Your task to perform on an android device: visit the assistant section in the google photos Image 0: 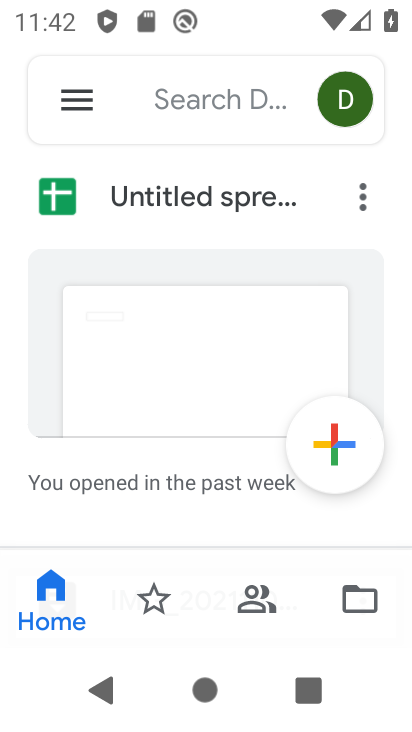
Step 0: press home button
Your task to perform on an android device: visit the assistant section in the google photos Image 1: 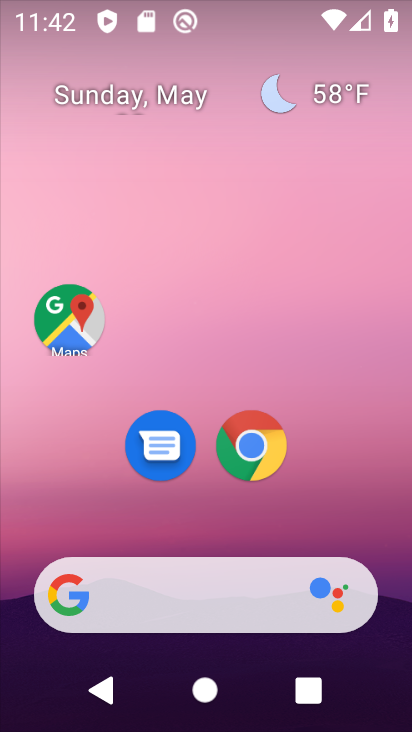
Step 1: drag from (211, 534) to (199, 83)
Your task to perform on an android device: visit the assistant section in the google photos Image 2: 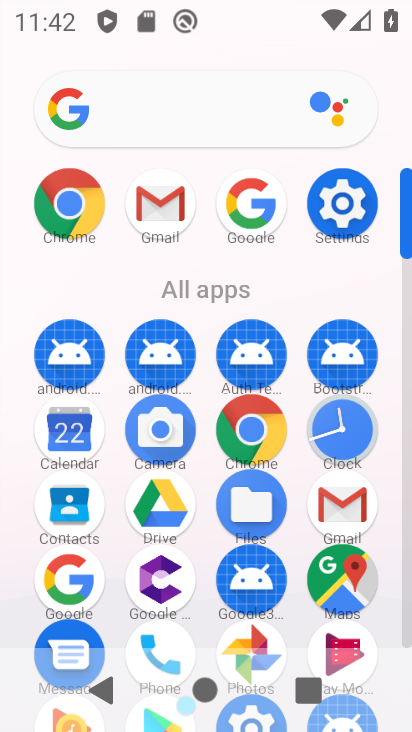
Step 2: drag from (203, 608) to (200, 189)
Your task to perform on an android device: visit the assistant section in the google photos Image 3: 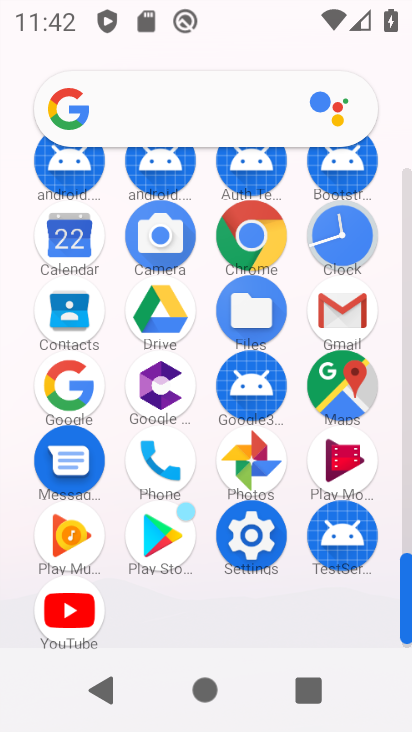
Step 3: click (248, 452)
Your task to perform on an android device: visit the assistant section in the google photos Image 4: 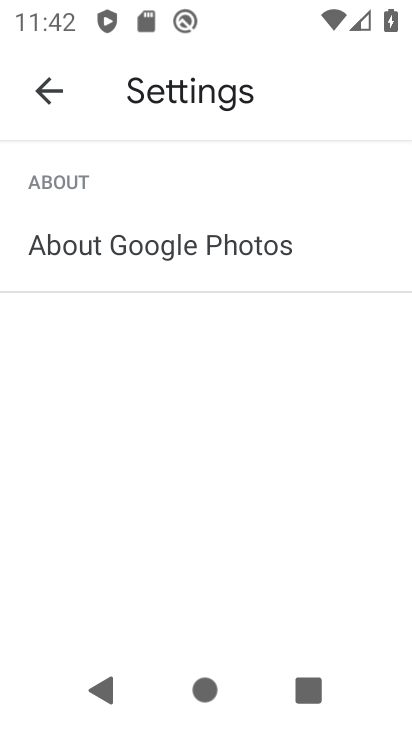
Step 4: press home button
Your task to perform on an android device: visit the assistant section in the google photos Image 5: 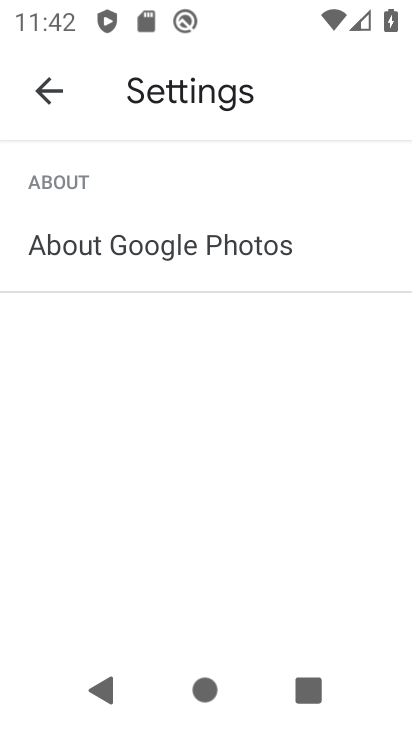
Step 5: press home button
Your task to perform on an android device: visit the assistant section in the google photos Image 6: 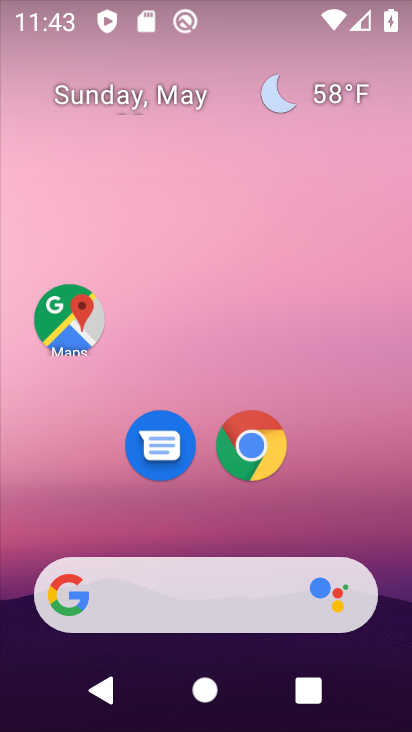
Step 6: drag from (200, 526) to (227, 0)
Your task to perform on an android device: visit the assistant section in the google photos Image 7: 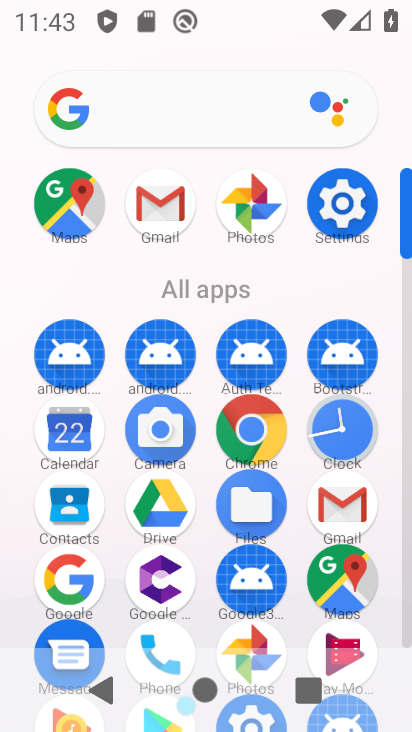
Step 7: drag from (199, 599) to (224, 174)
Your task to perform on an android device: visit the assistant section in the google photos Image 8: 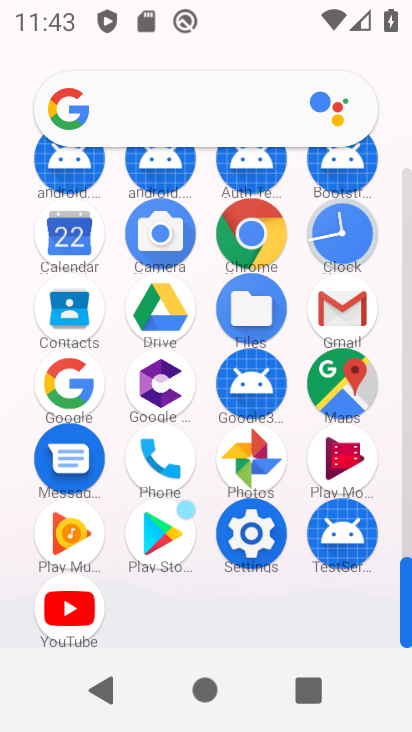
Step 8: click (247, 458)
Your task to perform on an android device: visit the assistant section in the google photos Image 9: 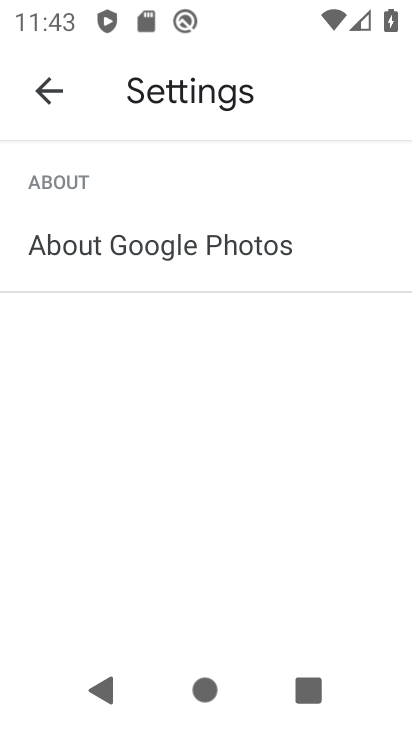
Step 9: press home button
Your task to perform on an android device: visit the assistant section in the google photos Image 10: 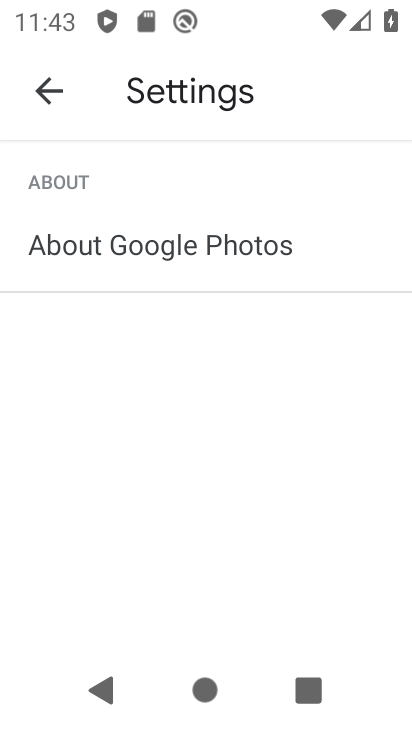
Step 10: press home button
Your task to perform on an android device: visit the assistant section in the google photos Image 11: 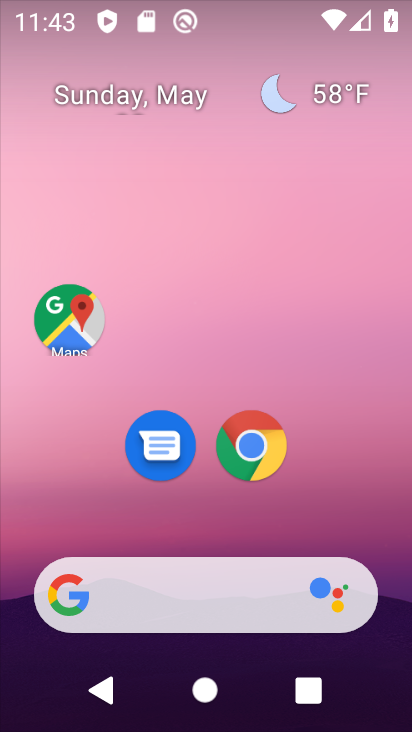
Step 11: drag from (213, 522) to (233, 6)
Your task to perform on an android device: visit the assistant section in the google photos Image 12: 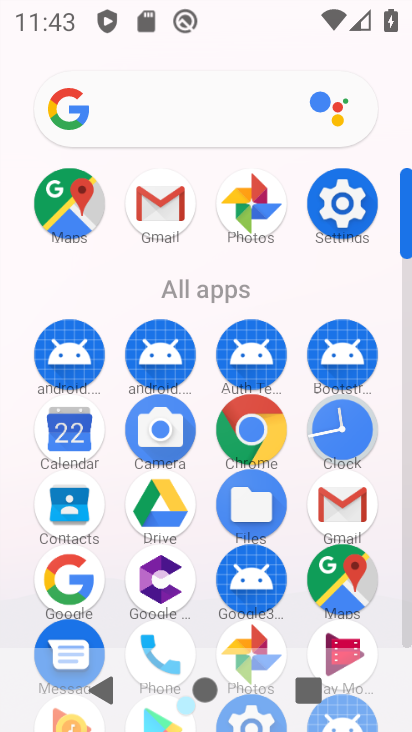
Step 12: drag from (204, 600) to (258, 167)
Your task to perform on an android device: visit the assistant section in the google photos Image 13: 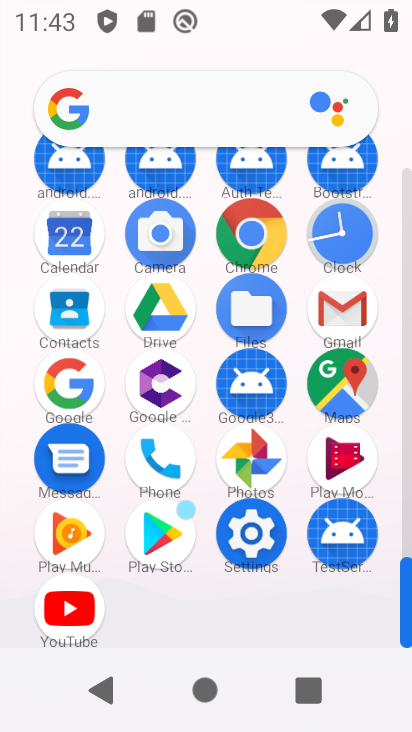
Step 13: click (252, 453)
Your task to perform on an android device: visit the assistant section in the google photos Image 14: 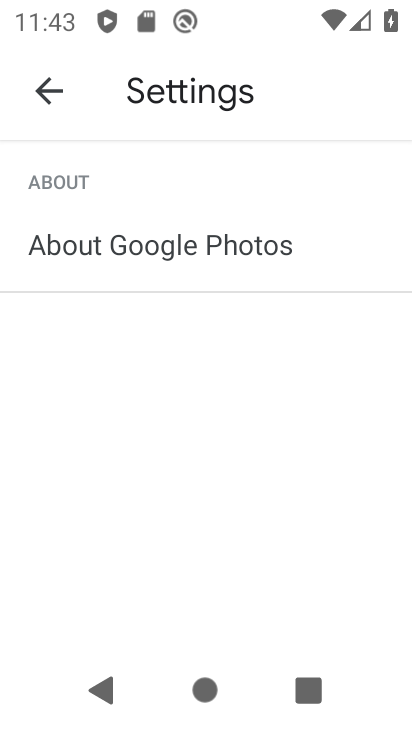
Step 14: click (41, 82)
Your task to perform on an android device: visit the assistant section in the google photos Image 15: 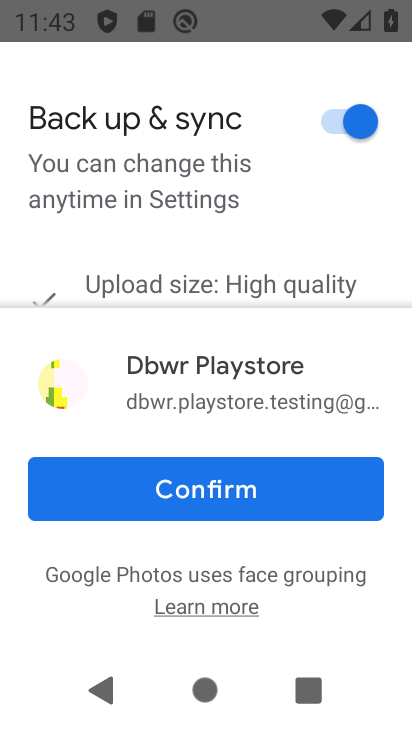
Step 15: click (216, 484)
Your task to perform on an android device: visit the assistant section in the google photos Image 16: 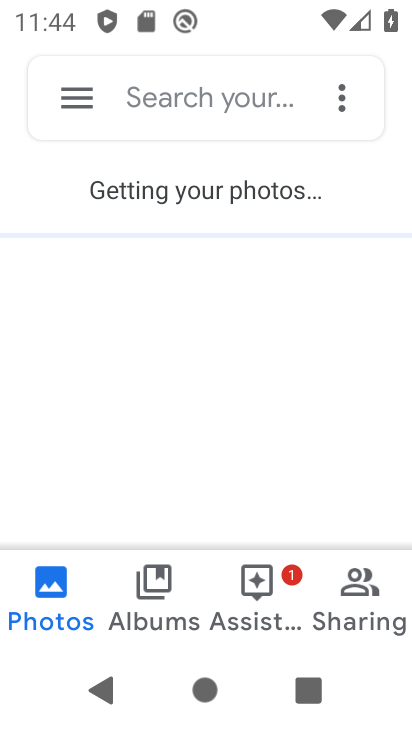
Step 16: click (256, 582)
Your task to perform on an android device: visit the assistant section in the google photos Image 17: 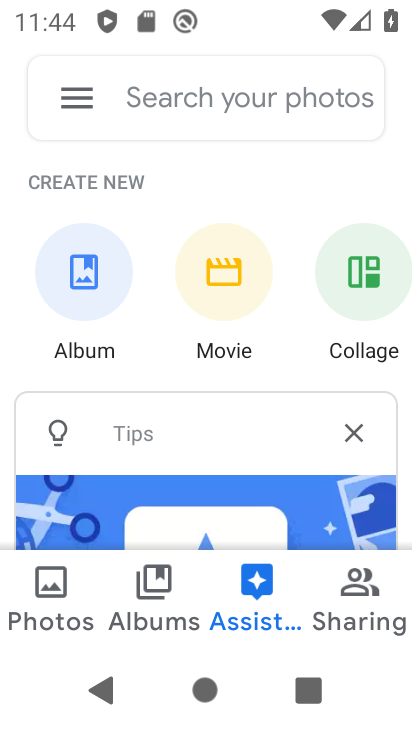
Step 17: task complete